Your task to perform on an android device: open a bookmark in the chrome app Image 0: 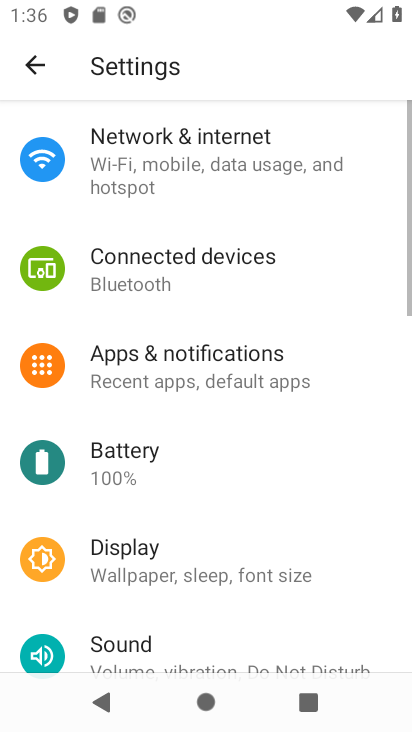
Step 0: drag from (228, 590) to (327, 174)
Your task to perform on an android device: open a bookmark in the chrome app Image 1: 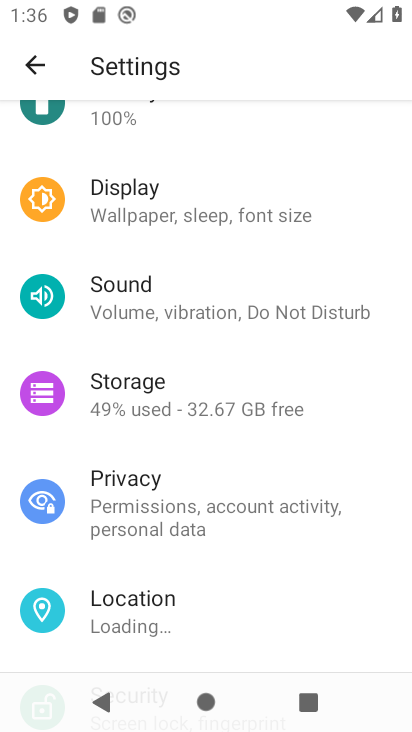
Step 1: press home button
Your task to perform on an android device: open a bookmark in the chrome app Image 2: 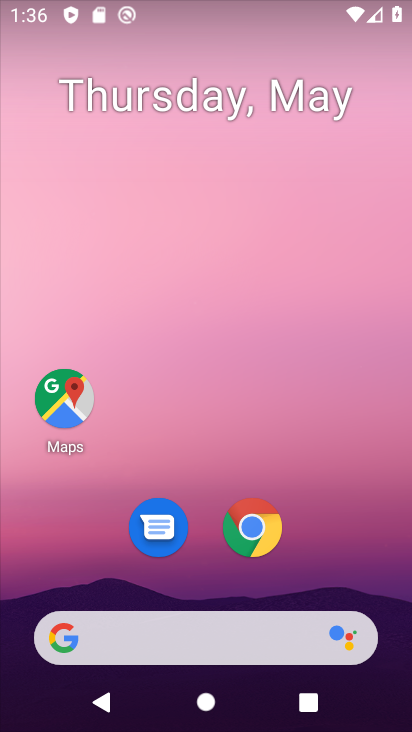
Step 2: click (252, 526)
Your task to perform on an android device: open a bookmark in the chrome app Image 3: 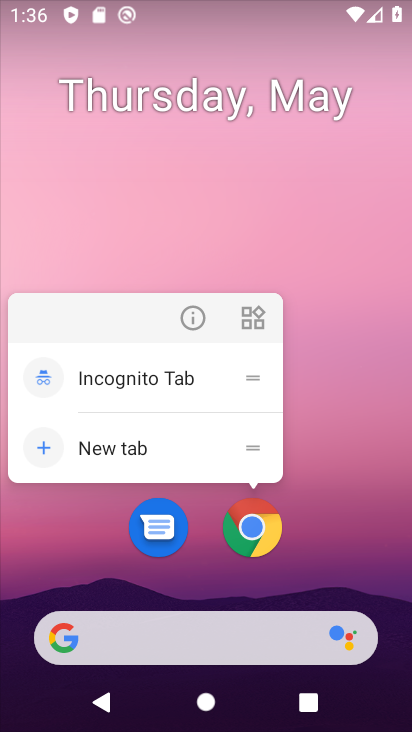
Step 3: click (197, 319)
Your task to perform on an android device: open a bookmark in the chrome app Image 4: 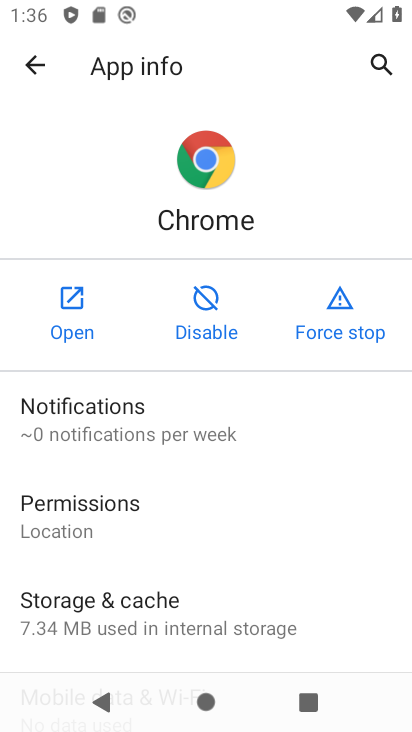
Step 4: click (91, 300)
Your task to perform on an android device: open a bookmark in the chrome app Image 5: 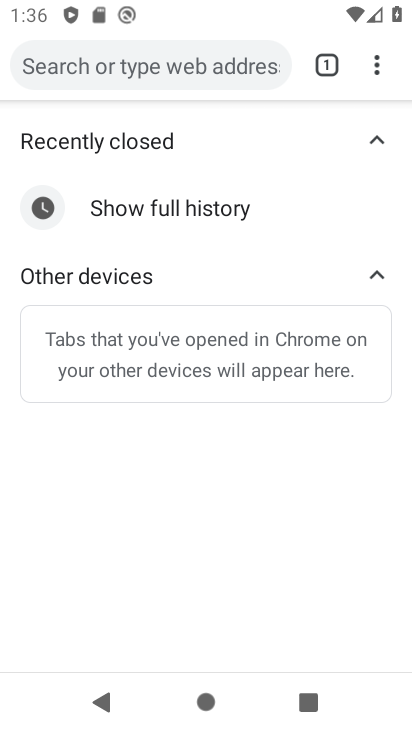
Step 5: click (232, 409)
Your task to perform on an android device: open a bookmark in the chrome app Image 6: 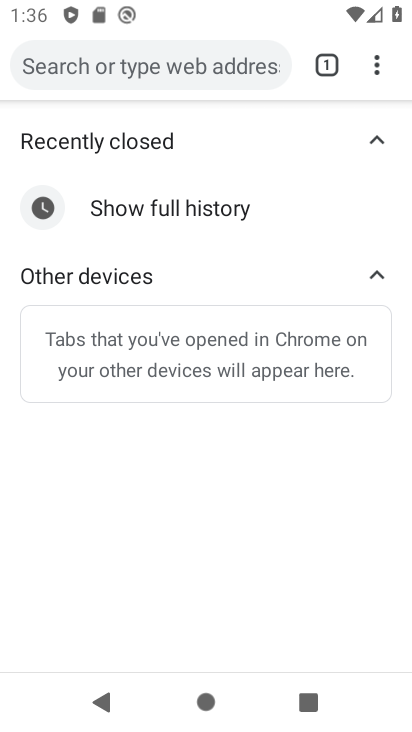
Step 6: click (373, 58)
Your task to perform on an android device: open a bookmark in the chrome app Image 7: 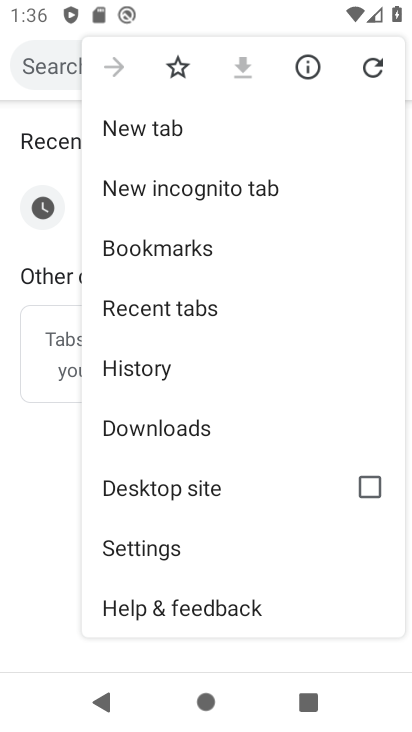
Step 7: click (135, 257)
Your task to perform on an android device: open a bookmark in the chrome app Image 8: 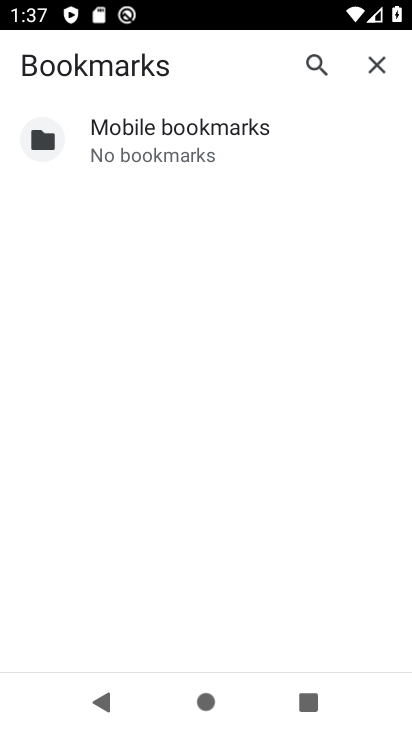
Step 8: click (219, 427)
Your task to perform on an android device: open a bookmark in the chrome app Image 9: 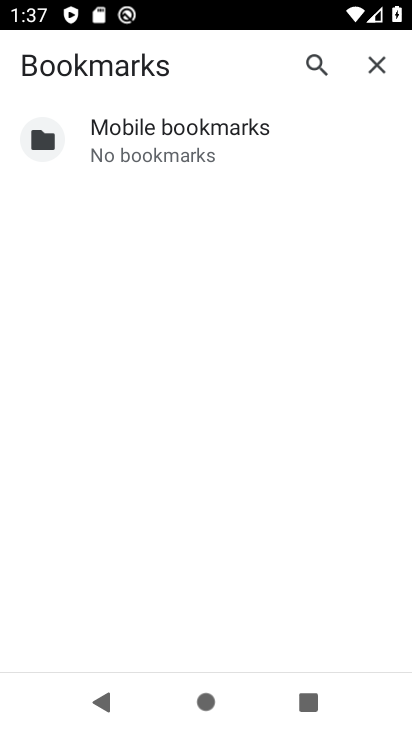
Step 9: task complete